Your task to perform on an android device: turn notification dots on Image 0: 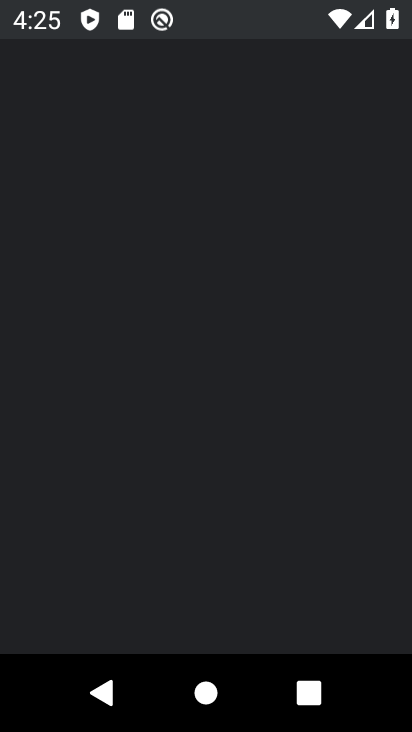
Step 0: press home button
Your task to perform on an android device: turn notification dots on Image 1: 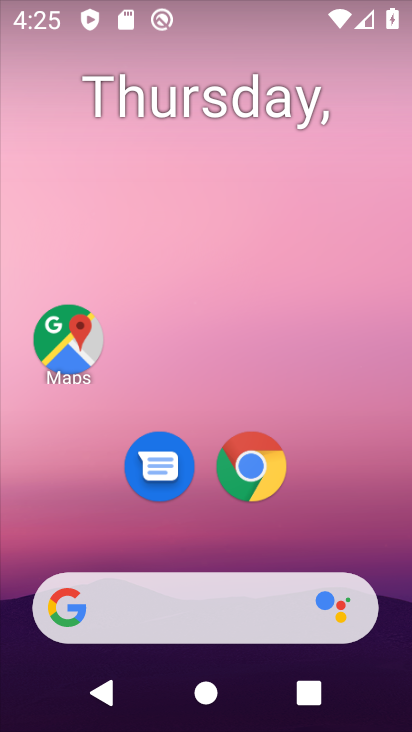
Step 1: drag from (211, 547) to (225, 45)
Your task to perform on an android device: turn notification dots on Image 2: 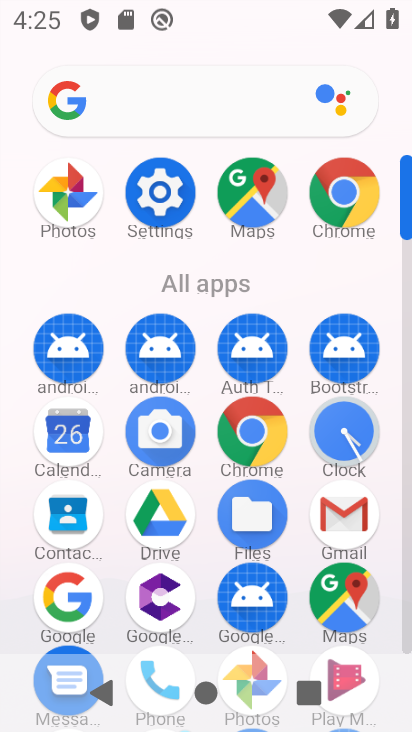
Step 2: click (158, 185)
Your task to perform on an android device: turn notification dots on Image 3: 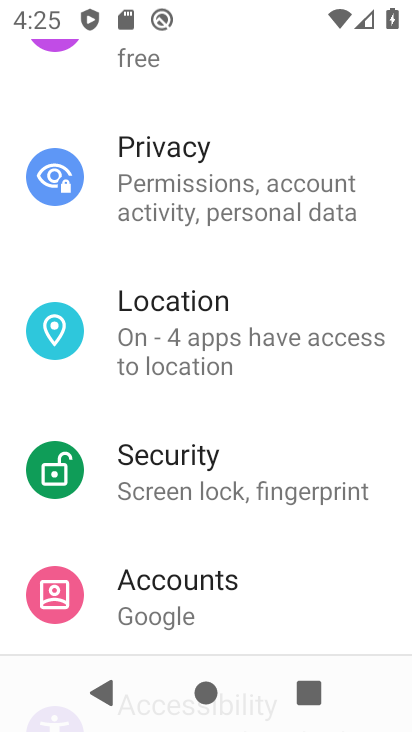
Step 3: drag from (211, 108) to (233, 654)
Your task to perform on an android device: turn notification dots on Image 4: 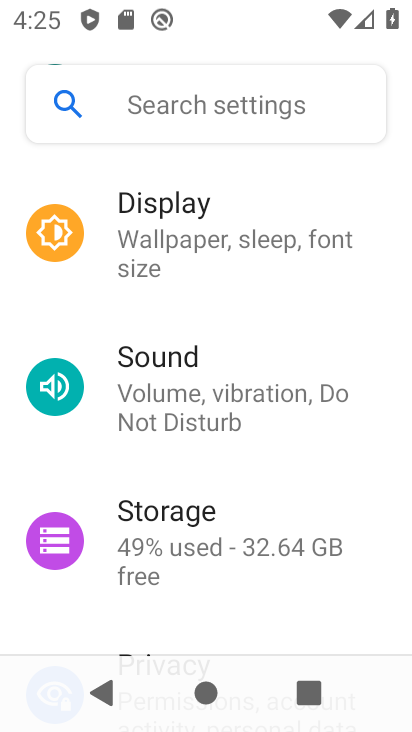
Step 4: drag from (225, 187) to (248, 635)
Your task to perform on an android device: turn notification dots on Image 5: 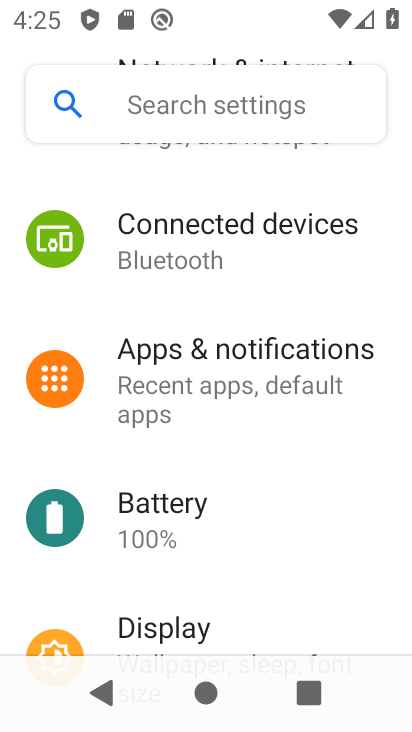
Step 5: click (351, 375)
Your task to perform on an android device: turn notification dots on Image 6: 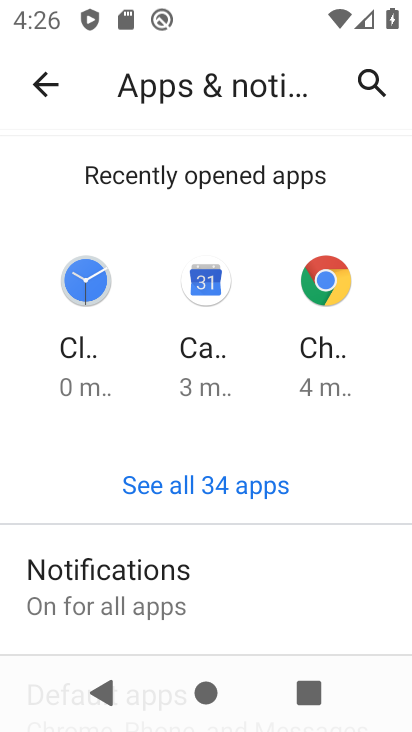
Step 6: click (203, 595)
Your task to perform on an android device: turn notification dots on Image 7: 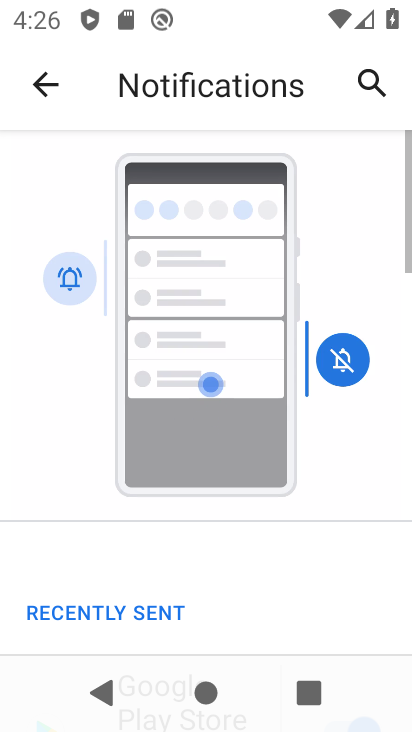
Step 7: drag from (225, 625) to (264, 65)
Your task to perform on an android device: turn notification dots on Image 8: 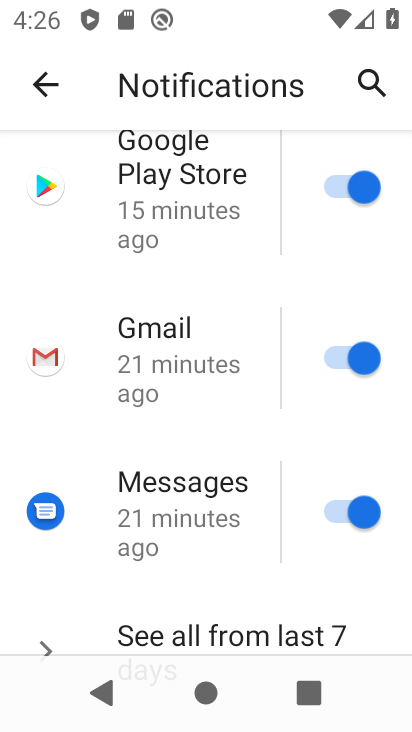
Step 8: drag from (227, 622) to (253, 114)
Your task to perform on an android device: turn notification dots on Image 9: 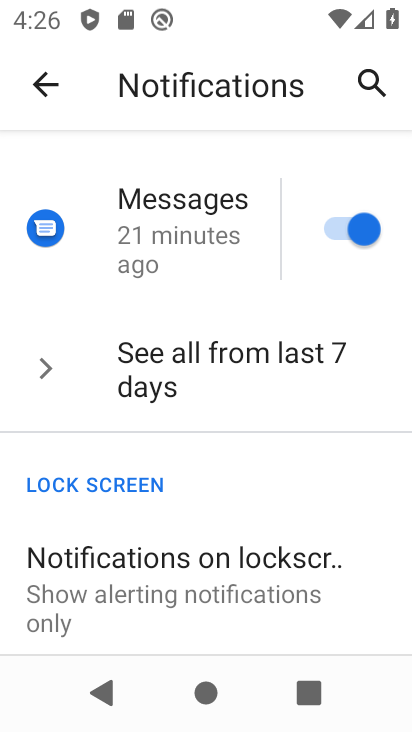
Step 9: drag from (231, 622) to (248, 92)
Your task to perform on an android device: turn notification dots on Image 10: 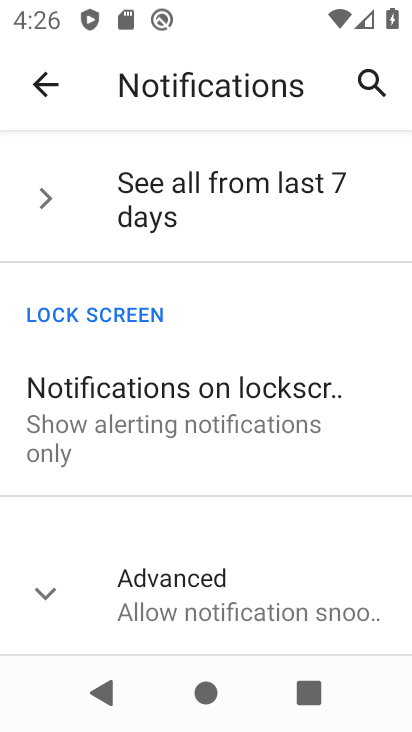
Step 10: click (42, 590)
Your task to perform on an android device: turn notification dots on Image 11: 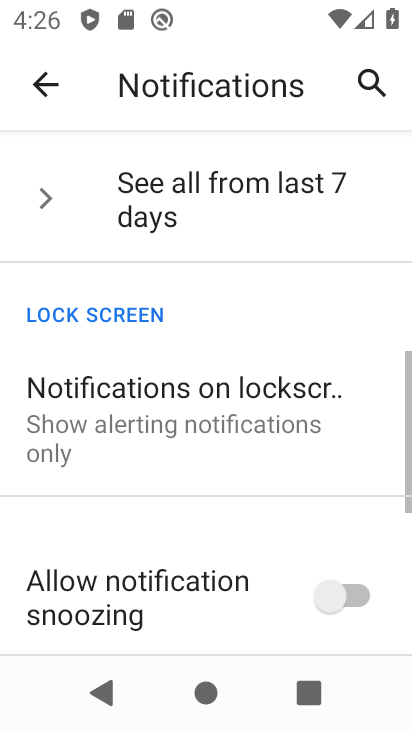
Step 11: task complete